Your task to perform on an android device: When is my next meeting? Image 0: 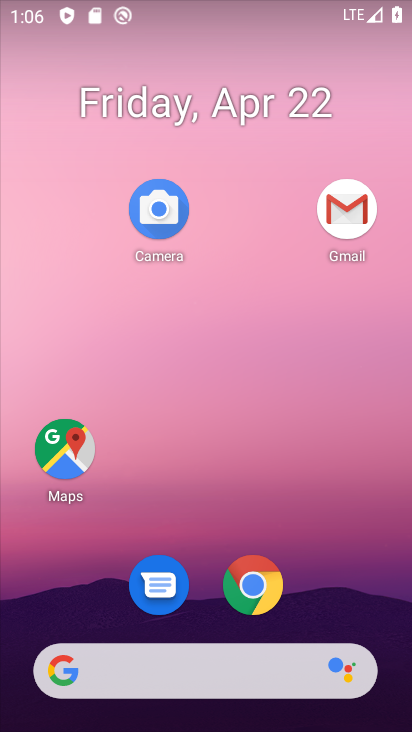
Step 0: drag from (335, 572) to (279, 141)
Your task to perform on an android device: When is my next meeting? Image 1: 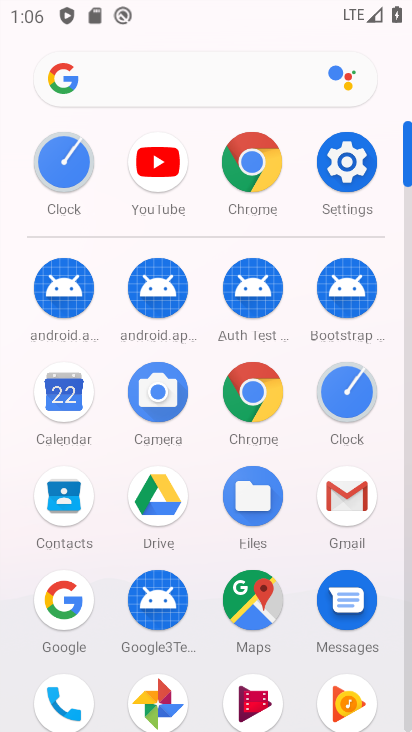
Step 1: click (71, 401)
Your task to perform on an android device: When is my next meeting? Image 2: 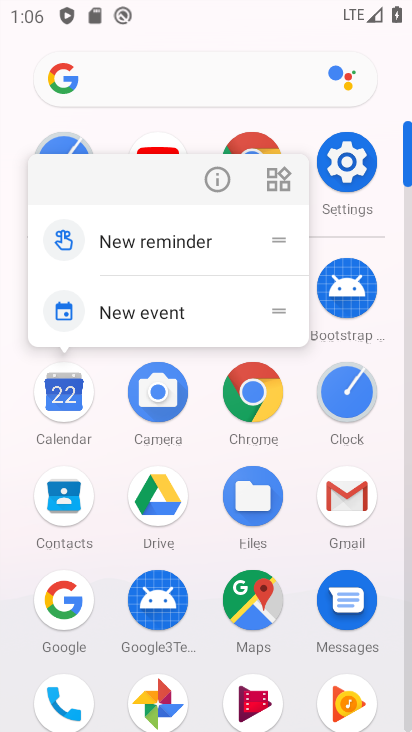
Step 2: click (66, 390)
Your task to perform on an android device: When is my next meeting? Image 3: 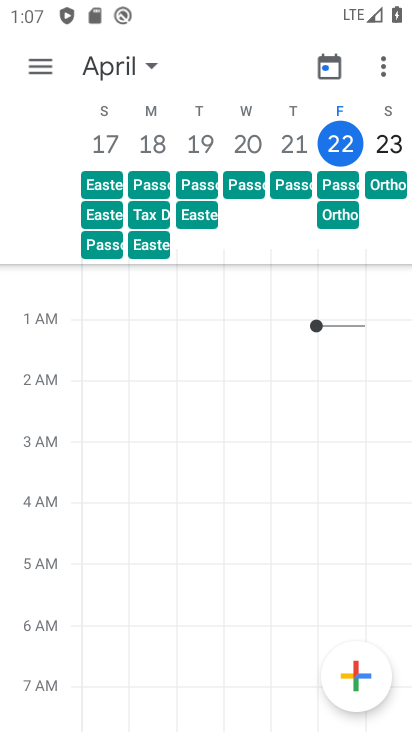
Step 3: click (348, 134)
Your task to perform on an android device: When is my next meeting? Image 4: 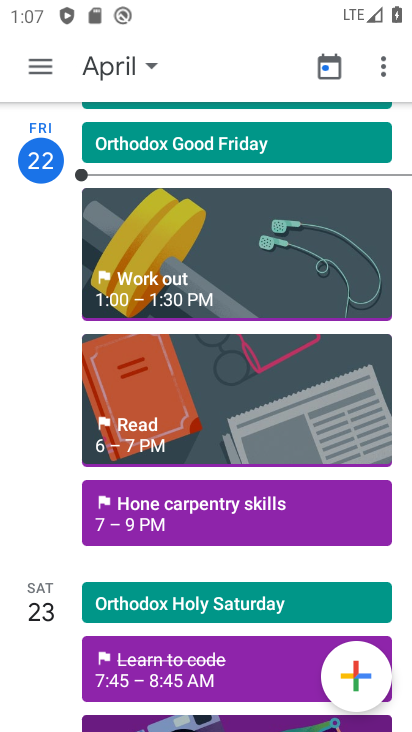
Step 4: task complete